Your task to perform on an android device: find photos in the google photos app Image 0: 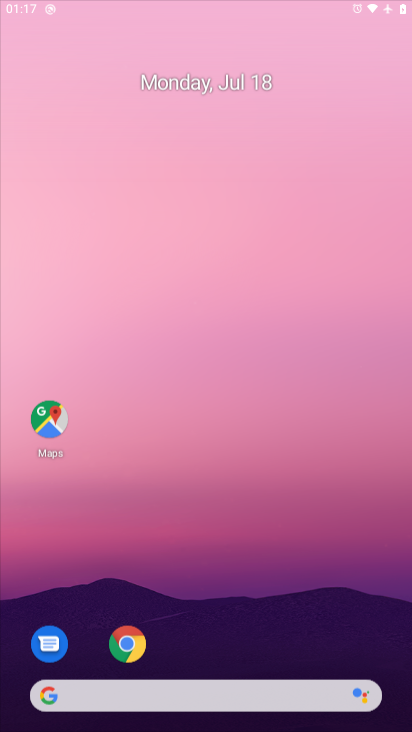
Step 0: press home button
Your task to perform on an android device: find photos in the google photos app Image 1: 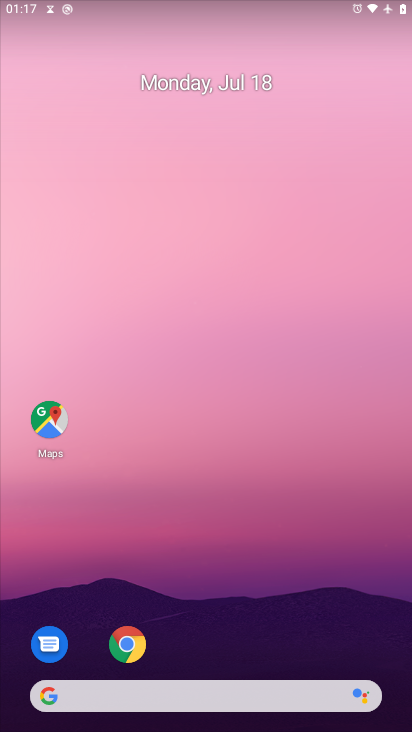
Step 1: drag from (241, 605) to (267, 76)
Your task to perform on an android device: find photos in the google photos app Image 2: 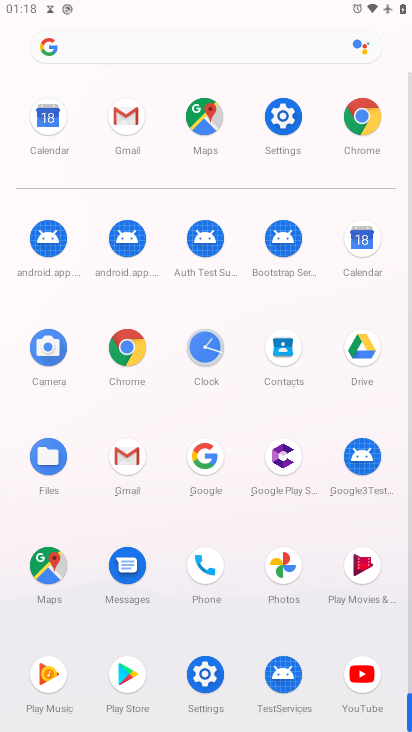
Step 2: click (282, 555)
Your task to perform on an android device: find photos in the google photos app Image 3: 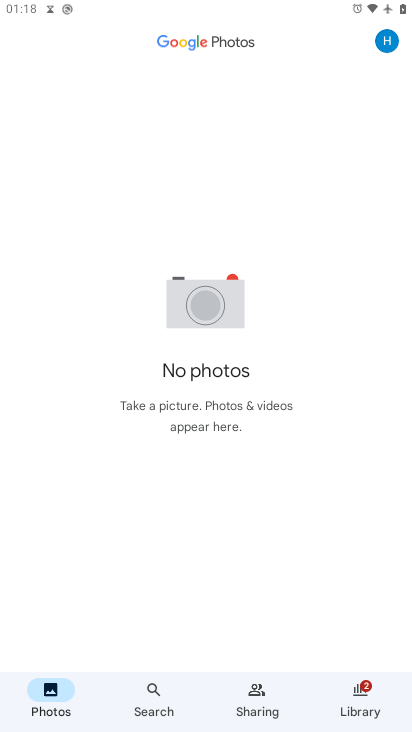
Step 3: click (43, 694)
Your task to perform on an android device: find photos in the google photos app Image 4: 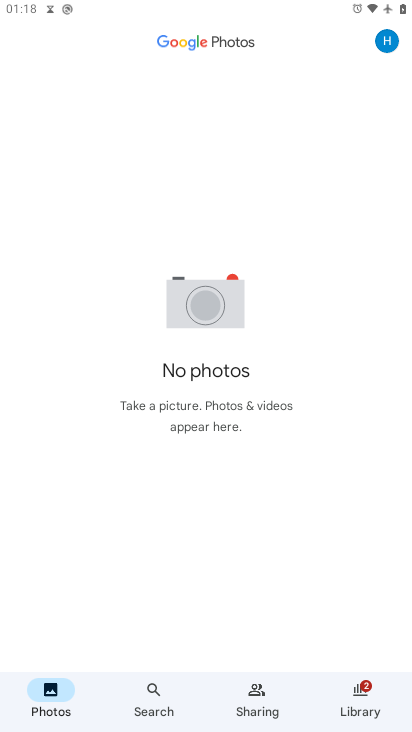
Step 4: task complete